Your task to perform on an android device: check out phone information Image 0: 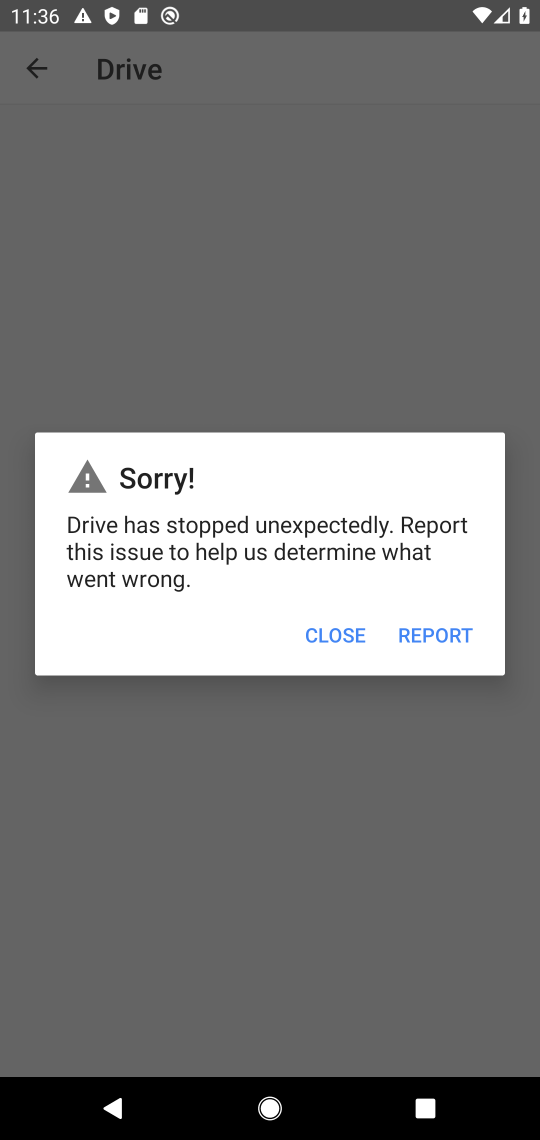
Step 0: press home button
Your task to perform on an android device: check out phone information Image 1: 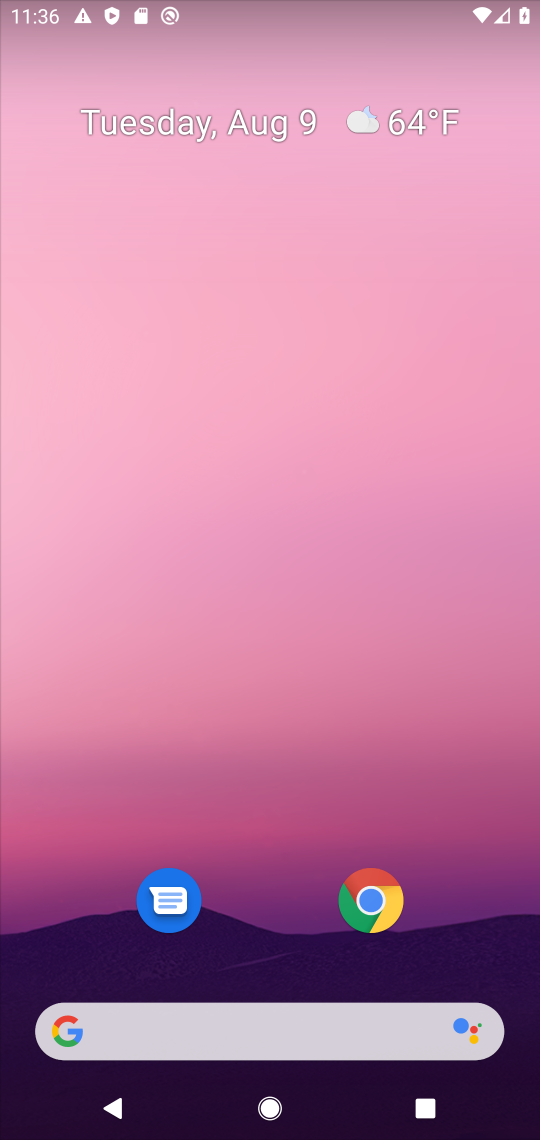
Step 1: drag from (274, 666) to (277, 55)
Your task to perform on an android device: check out phone information Image 2: 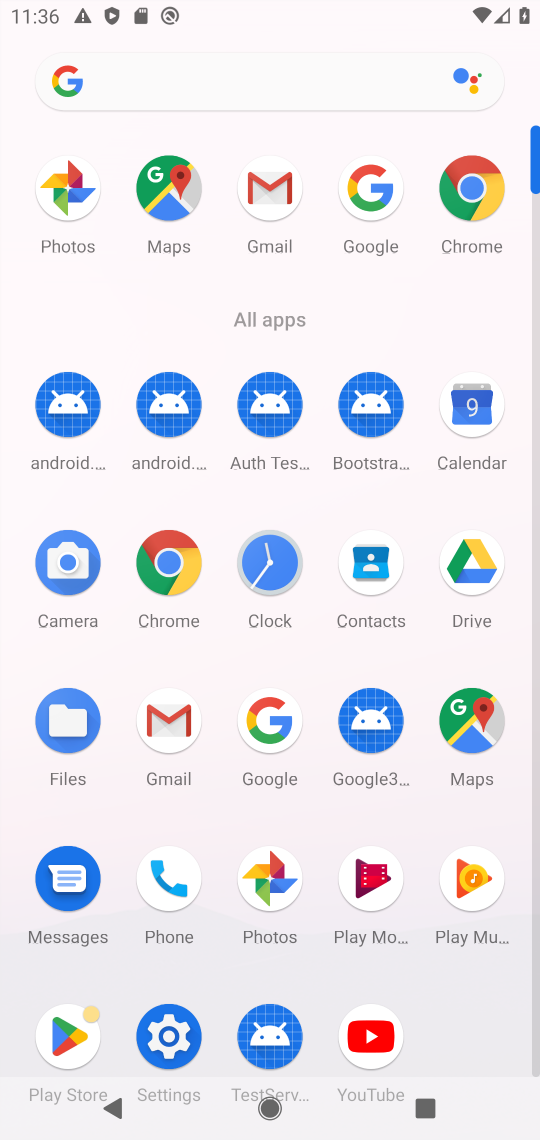
Step 2: click (176, 883)
Your task to perform on an android device: check out phone information Image 3: 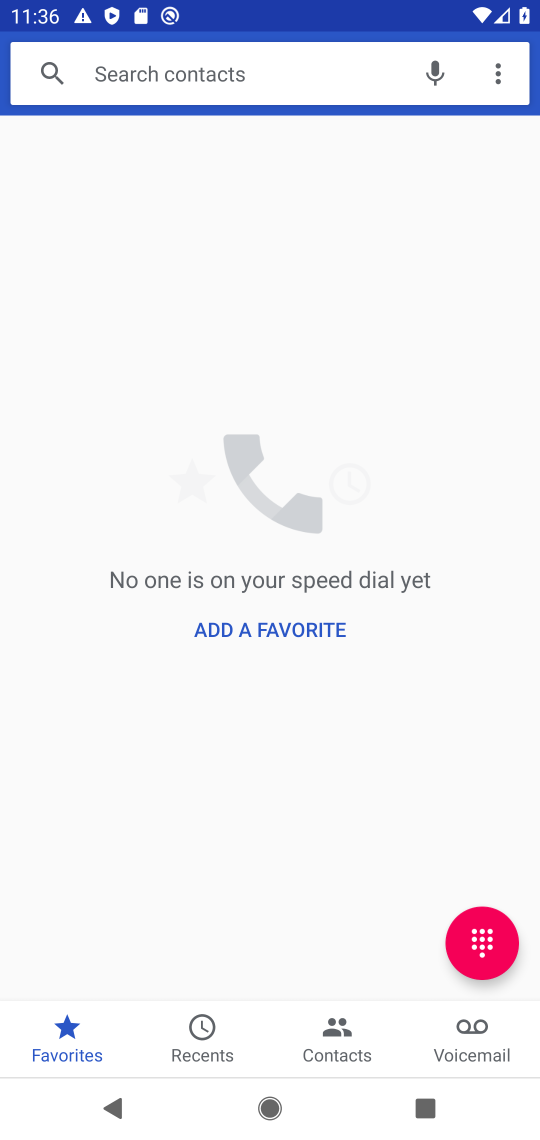
Step 3: click (498, 77)
Your task to perform on an android device: check out phone information Image 4: 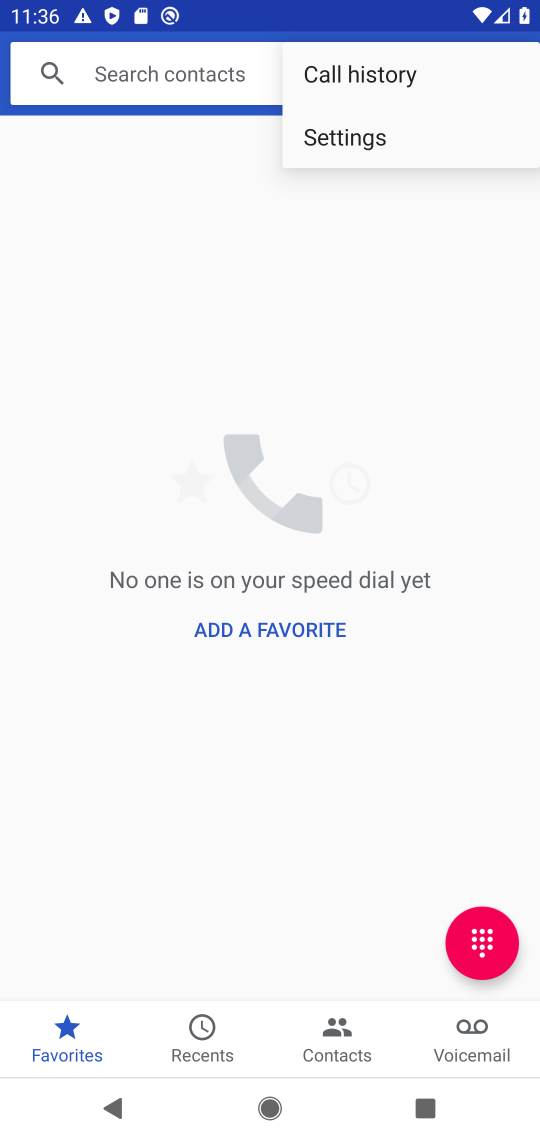
Step 4: click (387, 144)
Your task to perform on an android device: check out phone information Image 5: 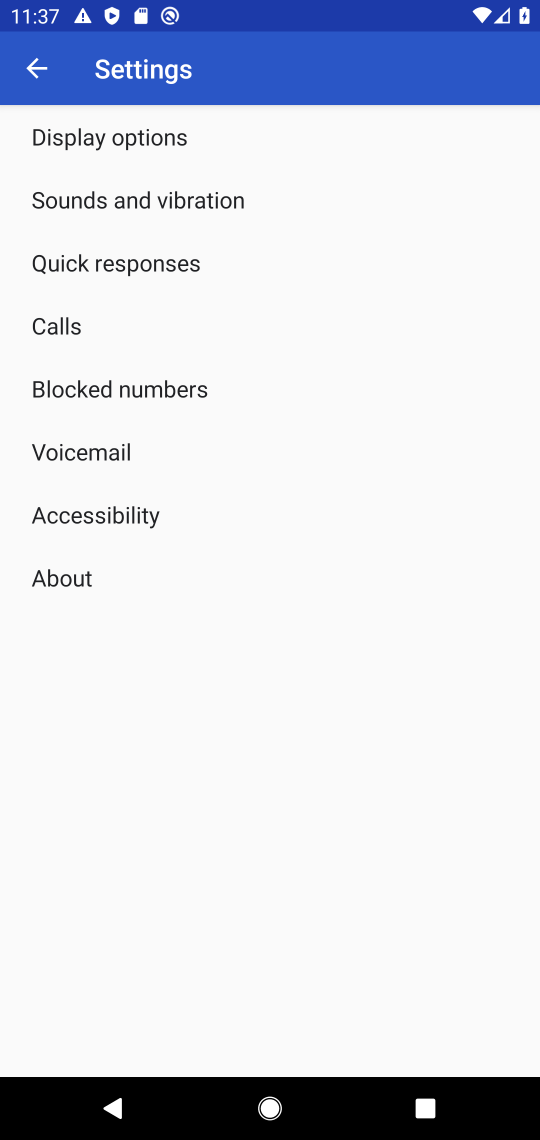
Step 5: click (67, 577)
Your task to perform on an android device: check out phone information Image 6: 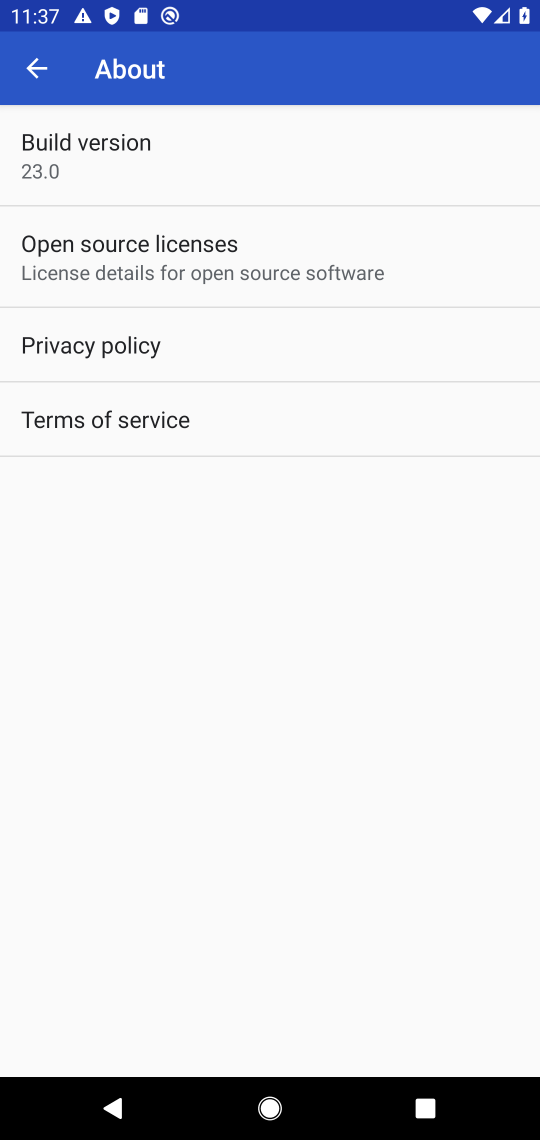
Step 6: task complete